Your task to perform on an android device: Open Google Chrome Image 0: 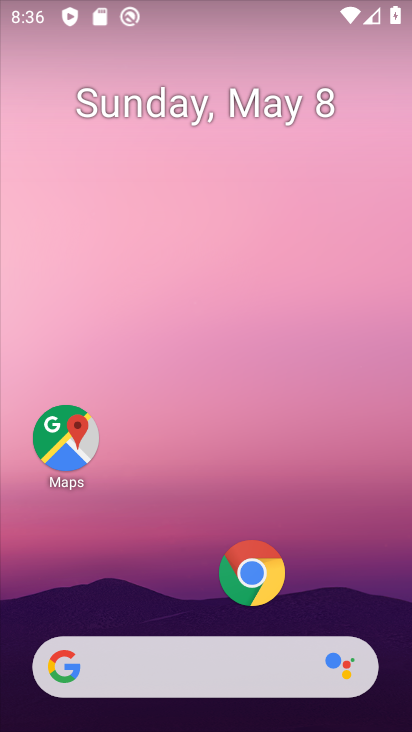
Step 0: click (244, 579)
Your task to perform on an android device: Open Google Chrome Image 1: 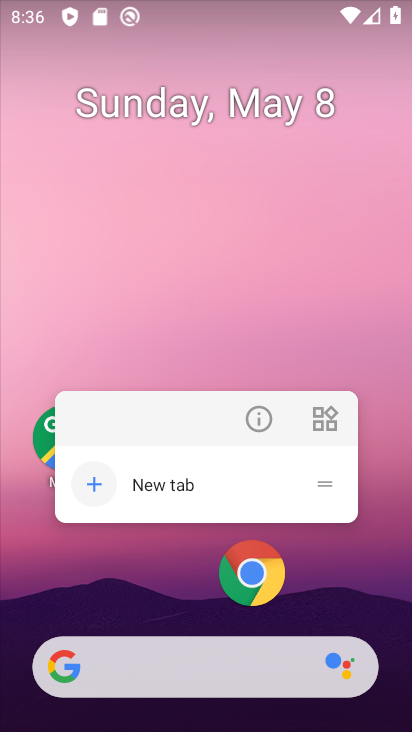
Step 1: click (250, 570)
Your task to perform on an android device: Open Google Chrome Image 2: 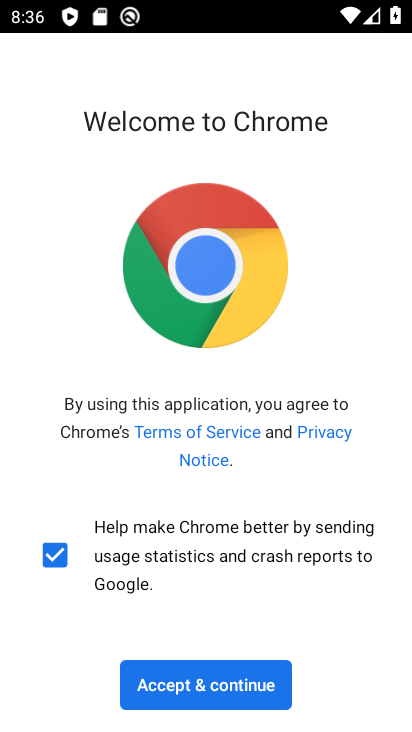
Step 2: click (238, 691)
Your task to perform on an android device: Open Google Chrome Image 3: 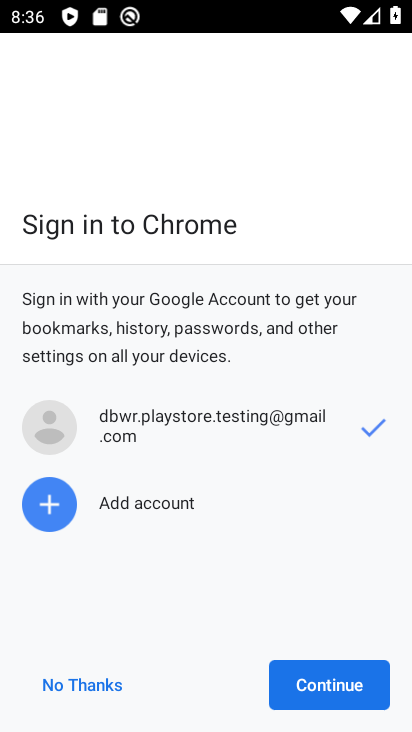
Step 3: click (329, 684)
Your task to perform on an android device: Open Google Chrome Image 4: 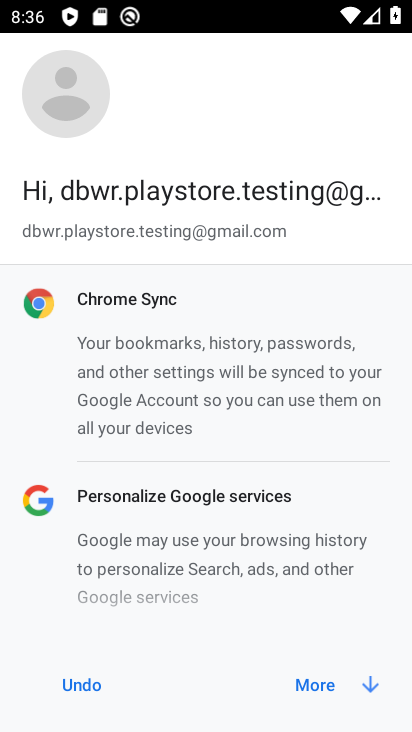
Step 4: click (323, 696)
Your task to perform on an android device: Open Google Chrome Image 5: 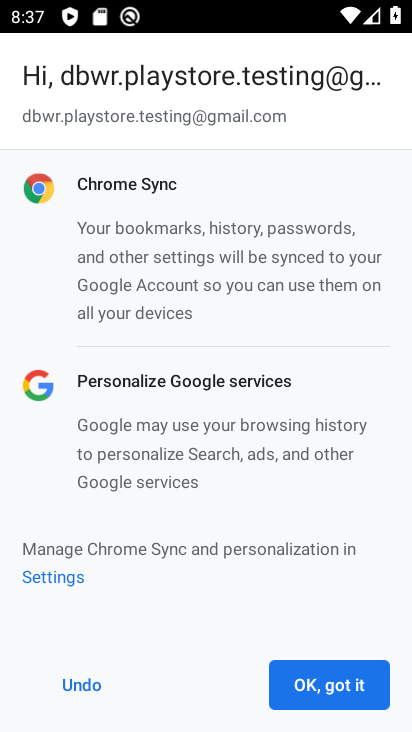
Step 5: click (320, 695)
Your task to perform on an android device: Open Google Chrome Image 6: 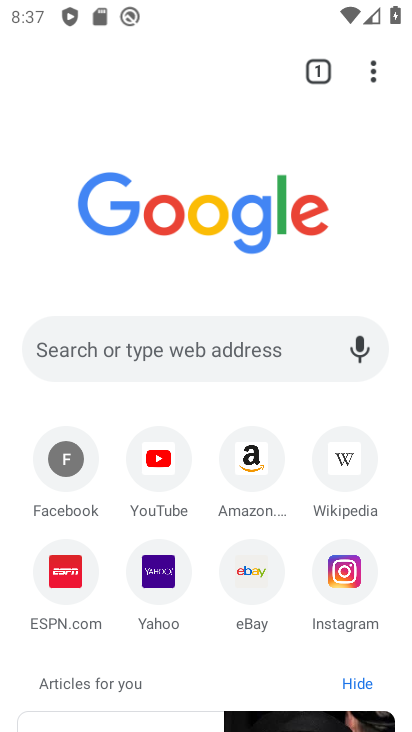
Step 6: task complete